Your task to perform on an android device: toggle data saver in the chrome app Image 0: 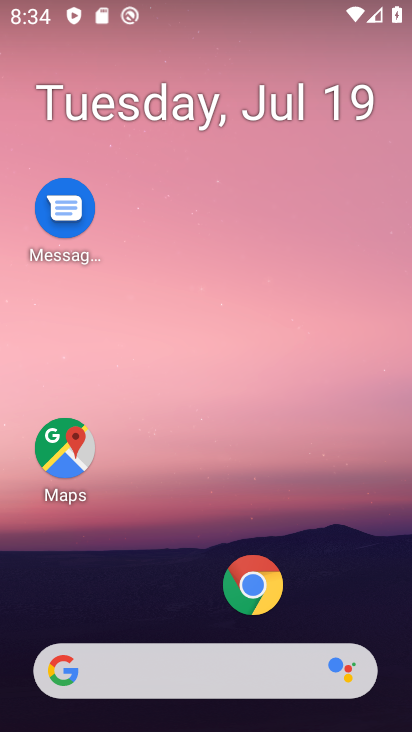
Step 0: drag from (198, 612) to (165, 111)
Your task to perform on an android device: toggle data saver in the chrome app Image 1: 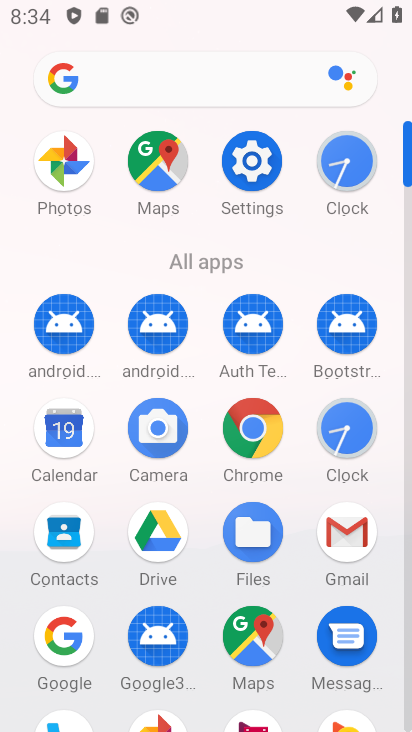
Step 1: click (255, 420)
Your task to perform on an android device: toggle data saver in the chrome app Image 2: 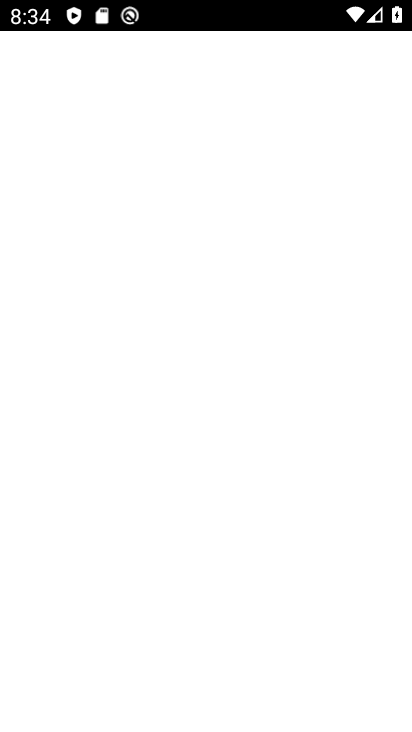
Step 2: click (255, 420)
Your task to perform on an android device: toggle data saver in the chrome app Image 3: 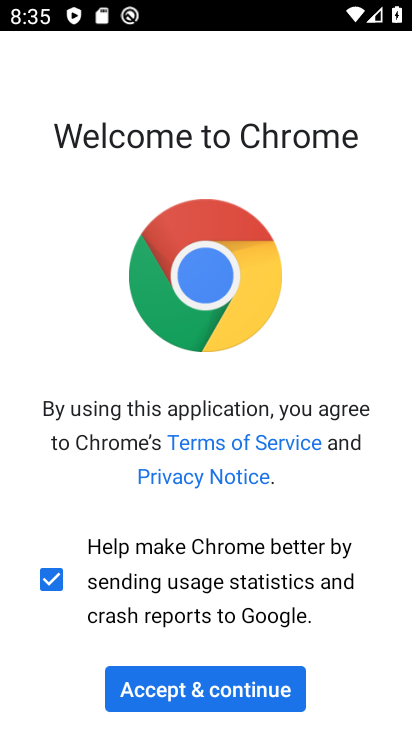
Step 3: click (239, 668)
Your task to perform on an android device: toggle data saver in the chrome app Image 4: 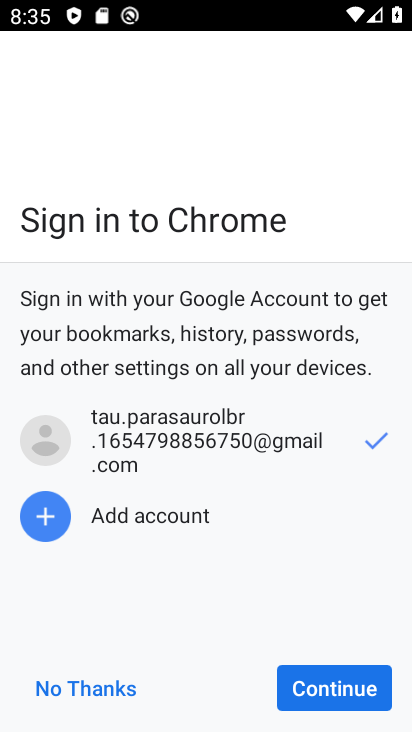
Step 4: click (318, 703)
Your task to perform on an android device: toggle data saver in the chrome app Image 5: 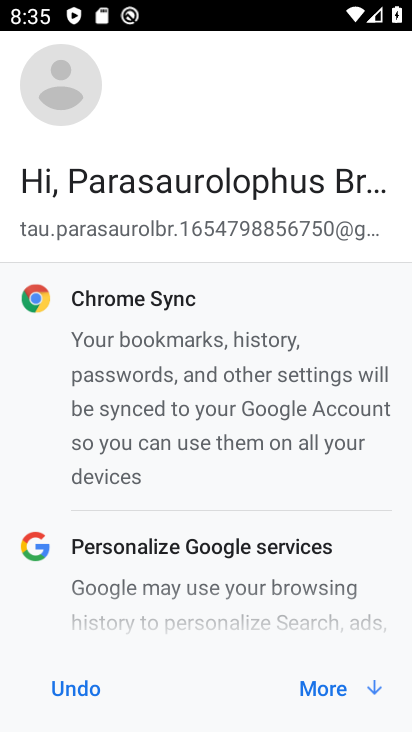
Step 5: click (361, 676)
Your task to perform on an android device: toggle data saver in the chrome app Image 6: 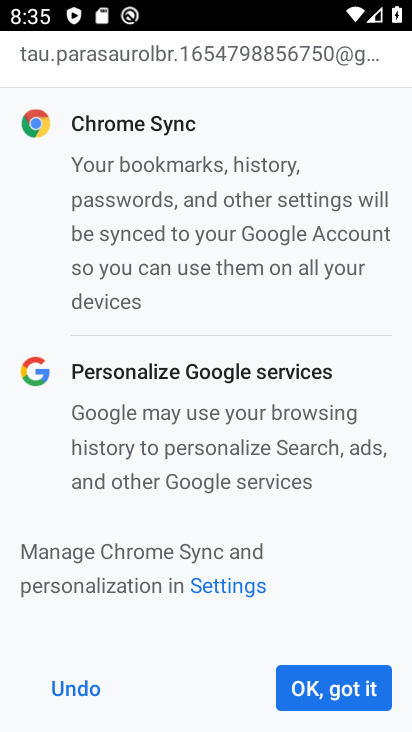
Step 6: click (361, 676)
Your task to perform on an android device: toggle data saver in the chrome app Image 7: 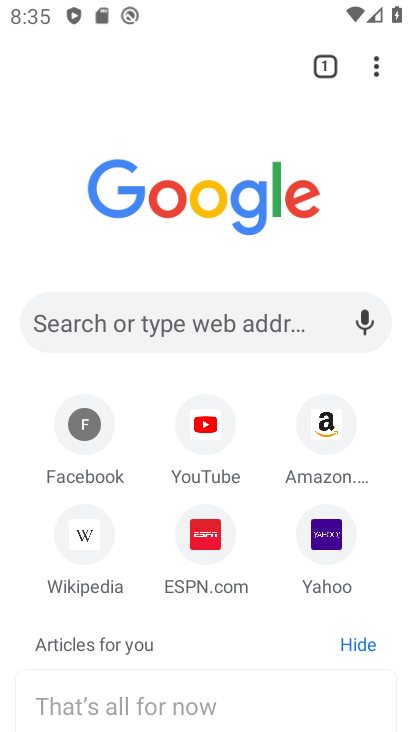
Step 7: click (376, 70)
Your task to perform on an android device: toggle data saver in the chrome app Image 8: 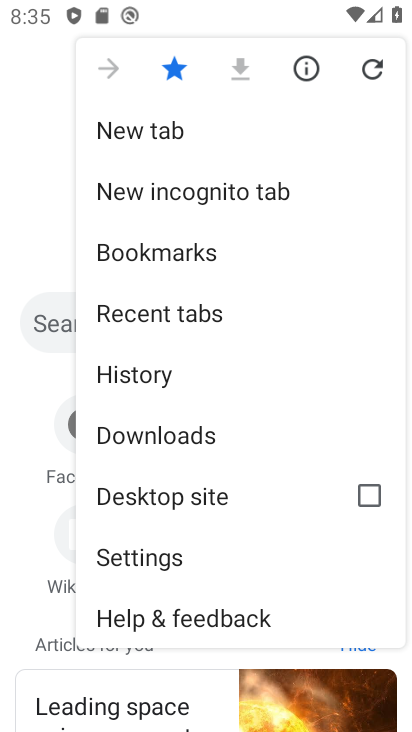
Step 8: click (142, 558)
Your task to perform on an android device: toggle data saver in the chrome app Image 9: 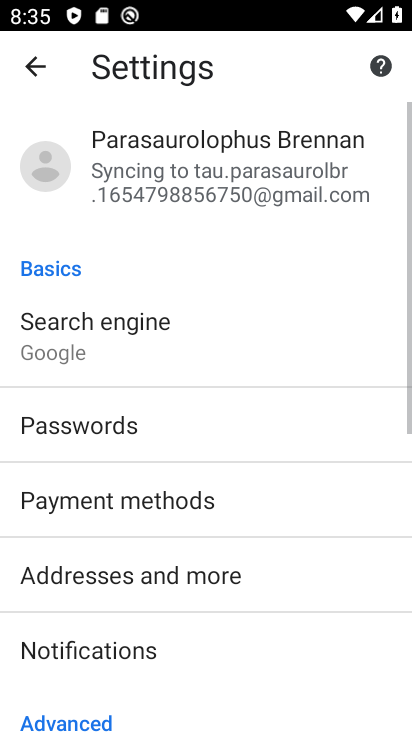
Step 9: drag from (142, 558) to (132, 34)
Your task to perform on an android device: toggle data saver in the chrome app Image 10: 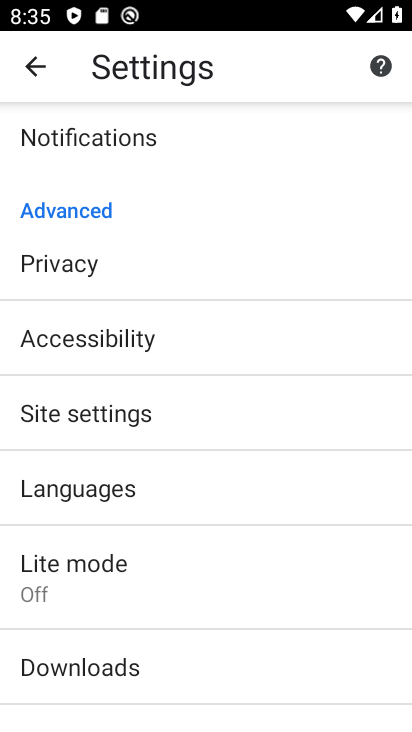
Step 10: click (92, 551)
Your task to perform on an android device: toggle data saver in the chrome app Image 11: 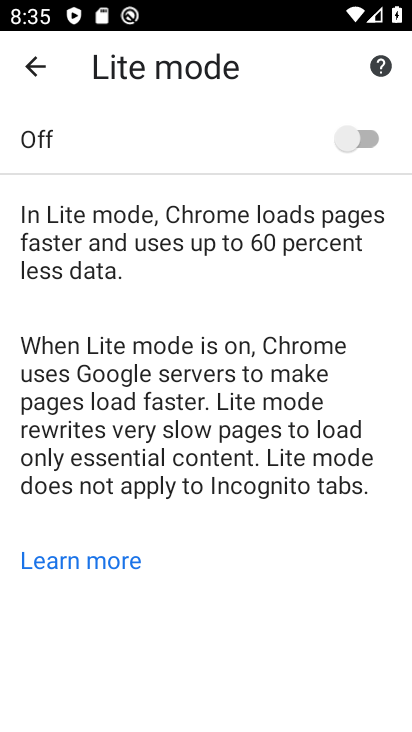
Step 11: click (365, 135)
Your task to perform on an android device: toggle data saver in the chrome app Image 12: 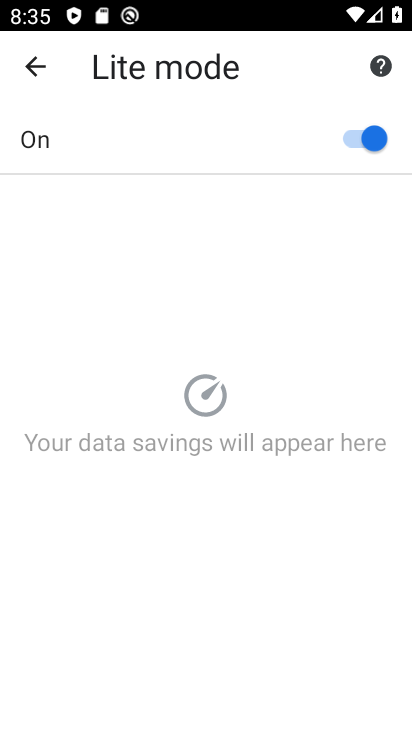
Step 12: task complete